Your task to perform on an android device: check the backup settings in the google photos Image 0: 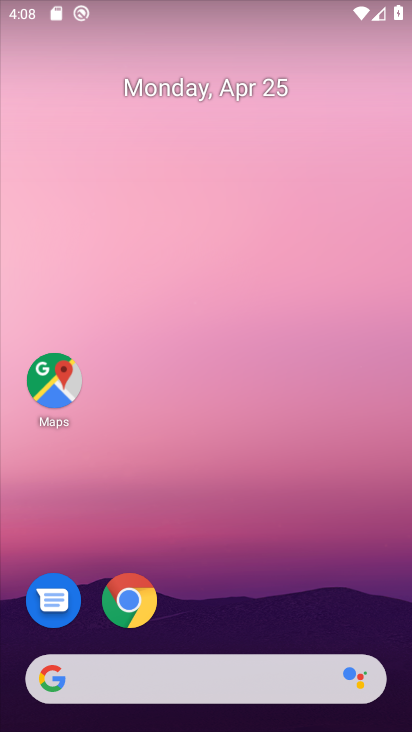
Step 0: drag from (213, 551) to (350, 8)
Your task to perform on an android device: check the backup settings in the google photos Image 1: 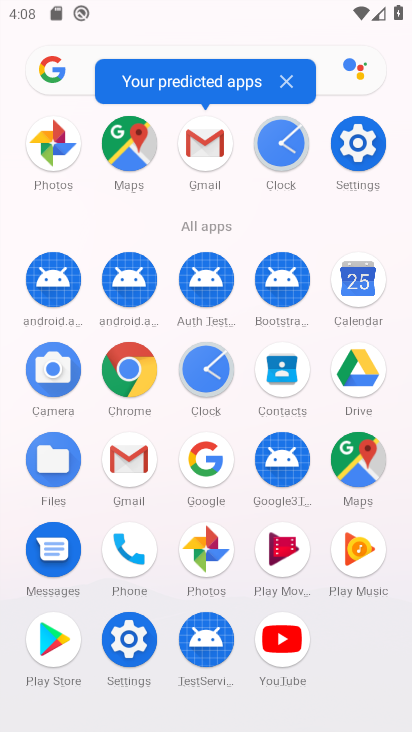
Step 1: click (197, 551)
Your task to perform on an android device: check the backup settings in the google photos Image 2: 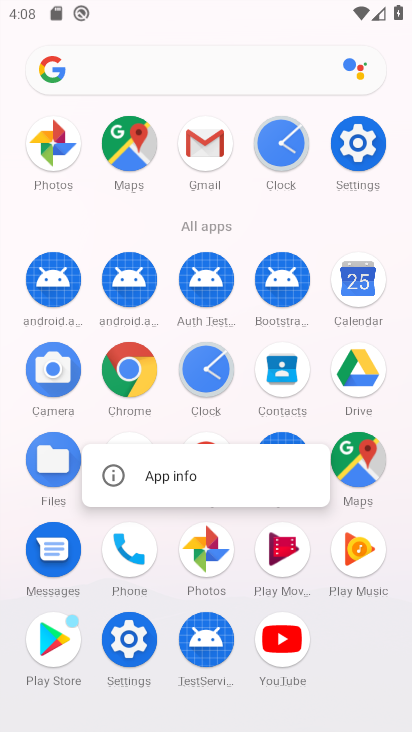
Step 2: click (208, 570)
Your task to perform on an android device: check the backup settings in the google photos Image 3: 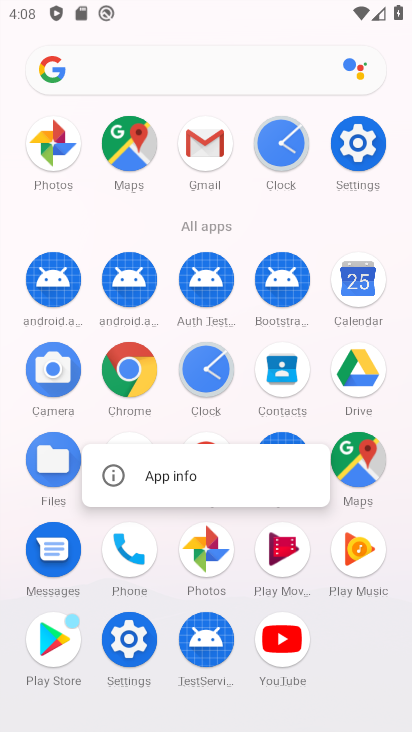
Step 3: click (211, 551)
Your task to perform on an android device: check the backup settings in the google photos Image 4: 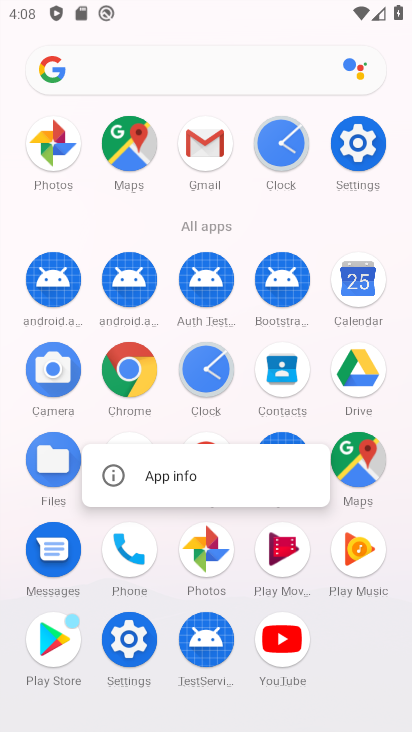
Step 4: click (211, 551)
Your task to perform on an android device: check the backup settings in the google photos Image 5: 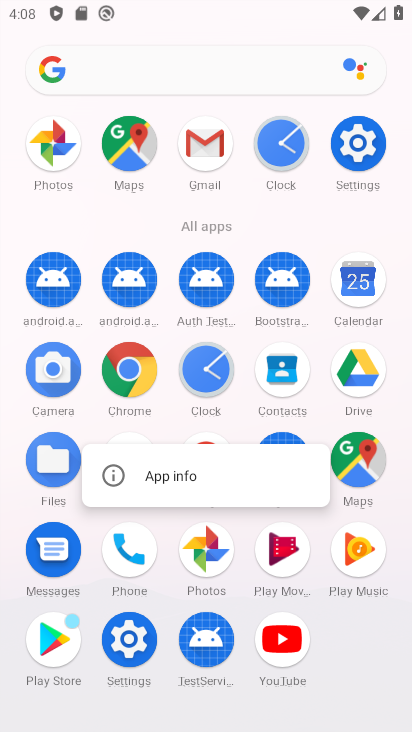
Step 5: click (211, 551)
Your task to perform on an android device: check the backup settings in the google photos Image 6: 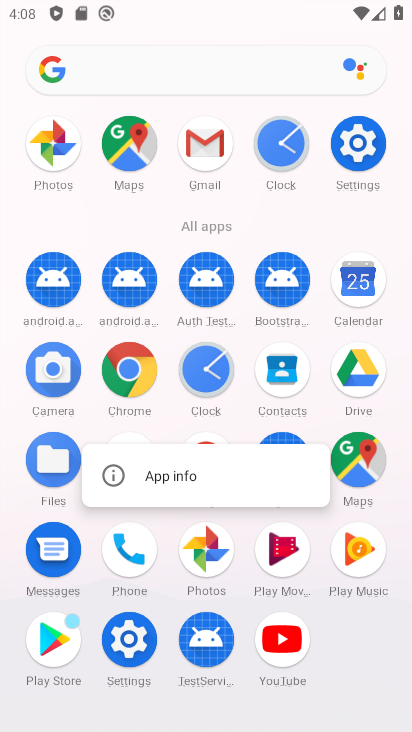
Step 6: click (219, 556)
Your task to perform on an android device: check the backup settings in the google photos Image 7: 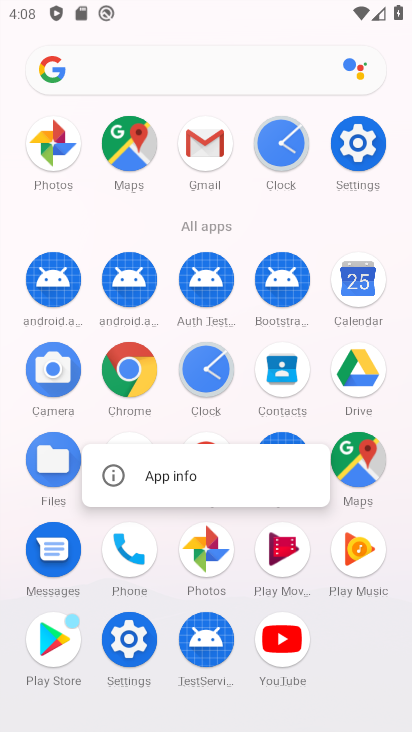
Step 7: click (210, 547)
Your task to perform on an android device: check the backup settings in the google photos Image 8: 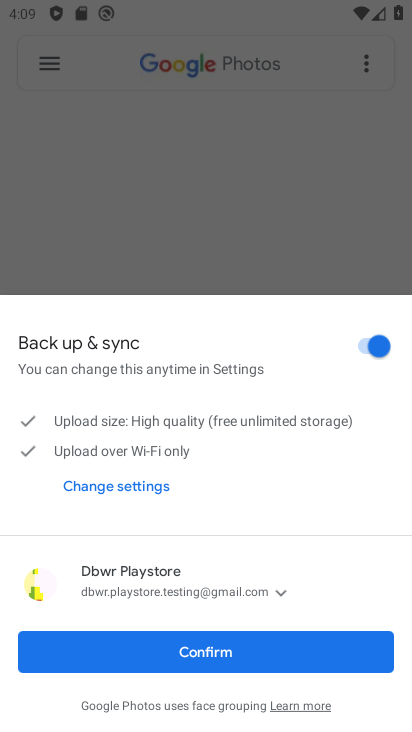
Step 8: click (211, 652)
Your task to perform on an android device: check the backup settings in the google photos Image 9: 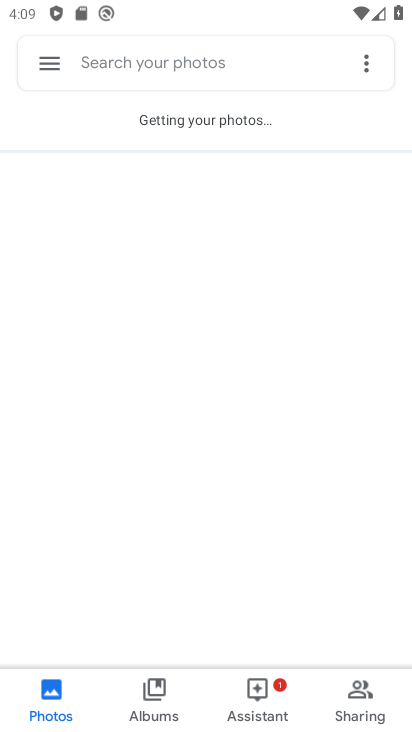
Step 9: click (54, 67)
Your task to perform on an android device: check the backup settings in the google photos Image 10: 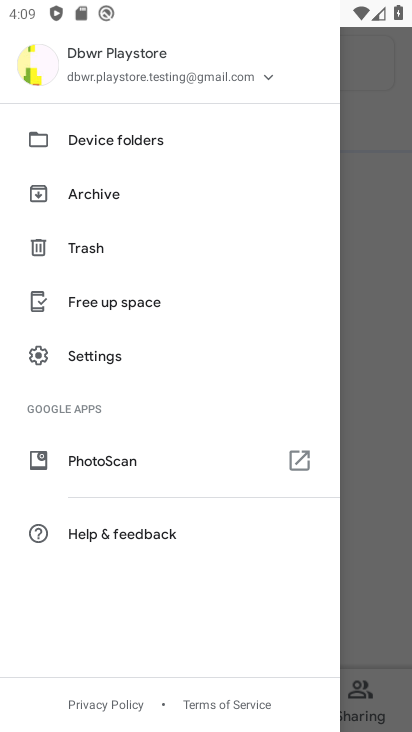
Step 10: click (160, 370)
Your task to perform on an android device: check the backup settings in the google photos Image 11: 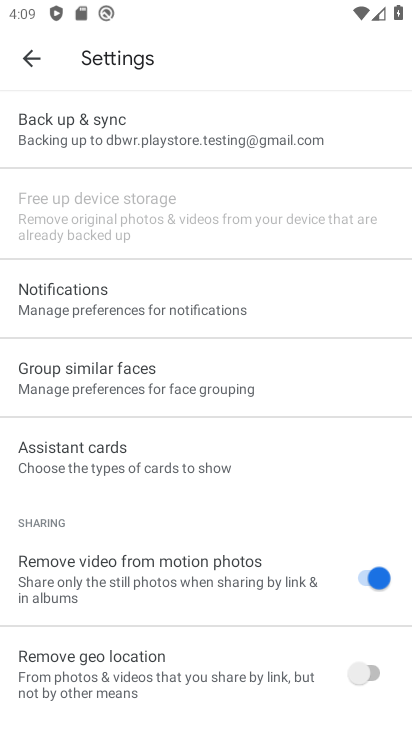
Step 11: click (232, 150)
Your task to perform on an android device: check the backup settings in the google photos Image 12: 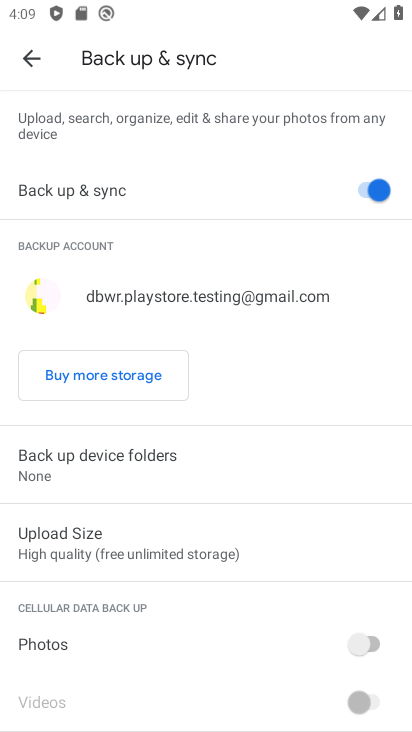
Step 12: task complete